Your task to perform on an android device: turn on priority inbox in the gmail app Image 0: 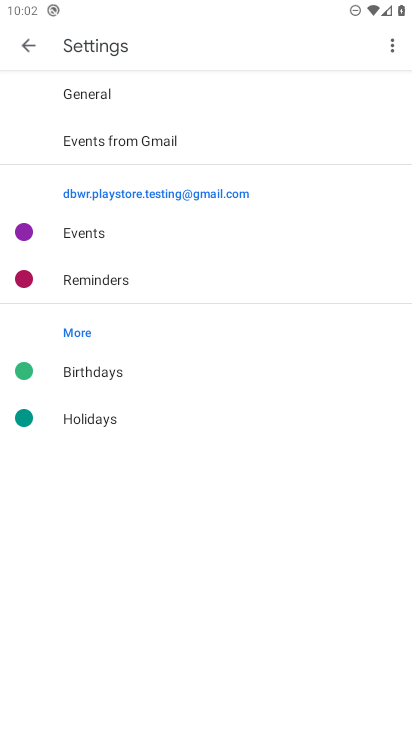
Step 0: press home button
Your task to perform on an android device: turn on priority inbox in the gmail app Image 1: 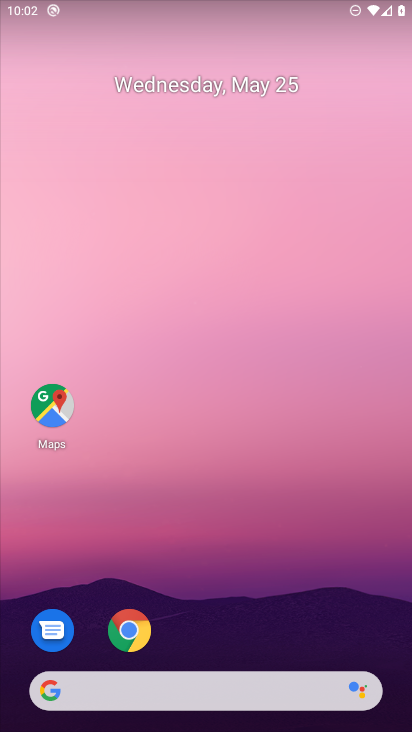
Step 1: drag from (170, 653) to (170, 406)
Your task to perform on an android device: turn on priority inbox in the gmail app Image 2: 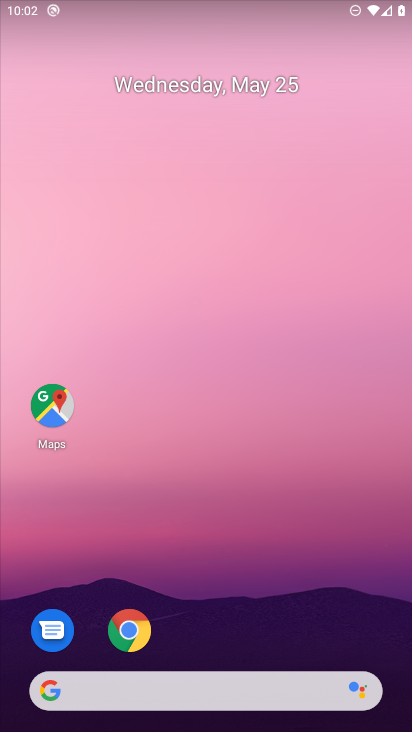
Step 2: drag from (233, 665) to (225, 199)
Your task to perform on an android device: turn on priority inbox in the gmail app Image 3: 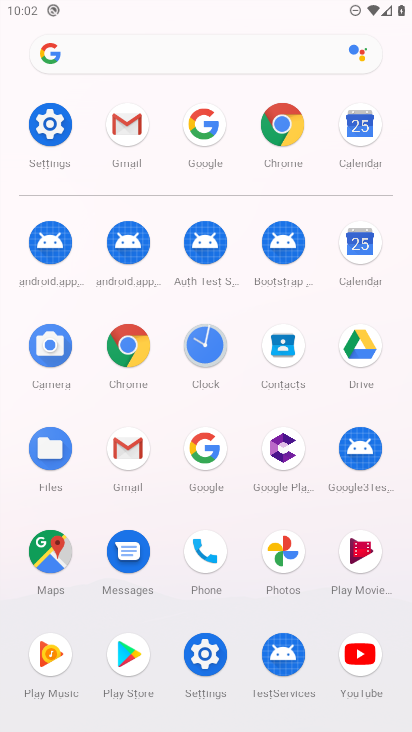
Step 3: click (127, 130)
Your task to perform on an android device: turn on priority inbox in the gmail app Image 4: 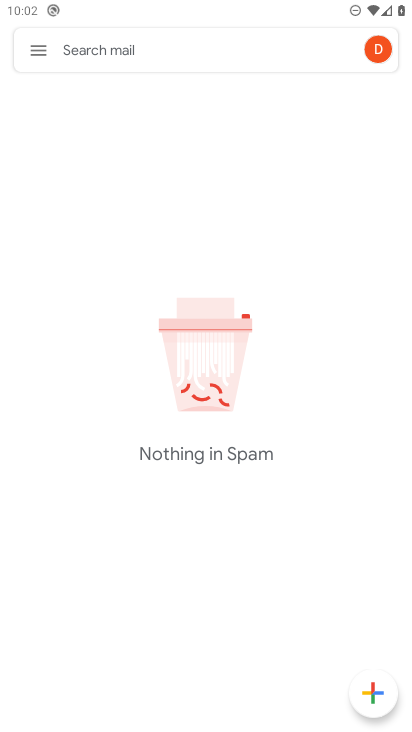
Step 4: click (39, 52)
Your task to perform on an android device: turn on priority inbox in the gmail app Image 5: 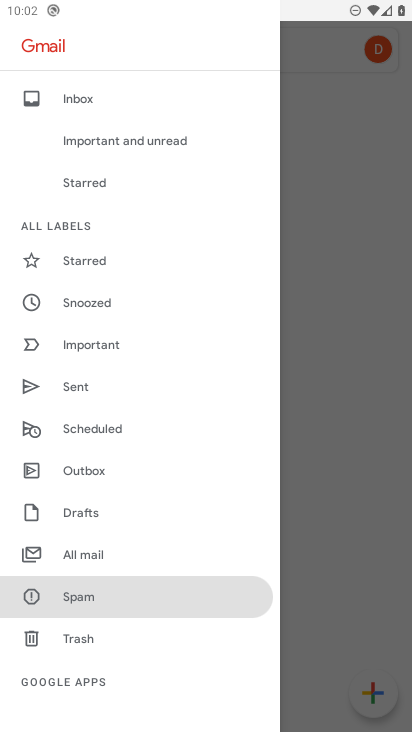
Step 5: drag from (79, 696) to (79, 352)
Your task to perform on an android device: turn on priority inbox in the gmail app Image 6: 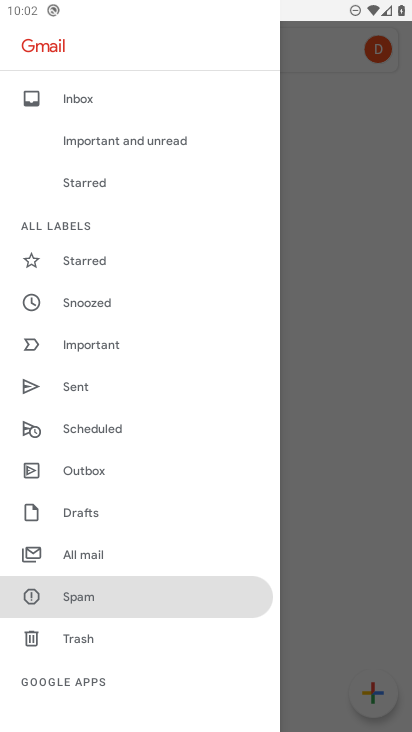
Step 6: drag from (103, 716) to (103, 375)
Your task to perform on an android device: turn on priority inbox in the gmail app Image 7: 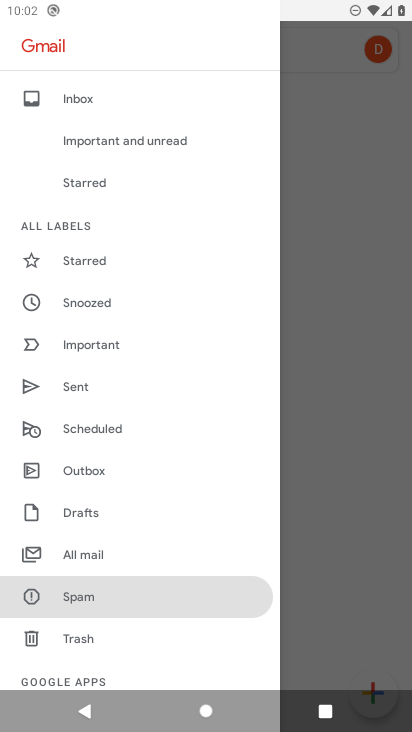
Step 7: drag from (144, 596) to (144, 315)
Your task to perform on an android device: turn on priority inbox in the gmail app Image 8: 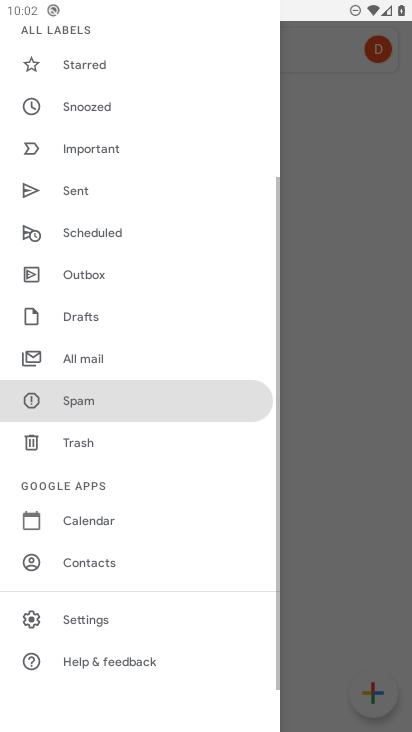
Step 8: click (102, 620)
Your task to perform on an android device: turn on priority inbox in the gmail app Image 9: 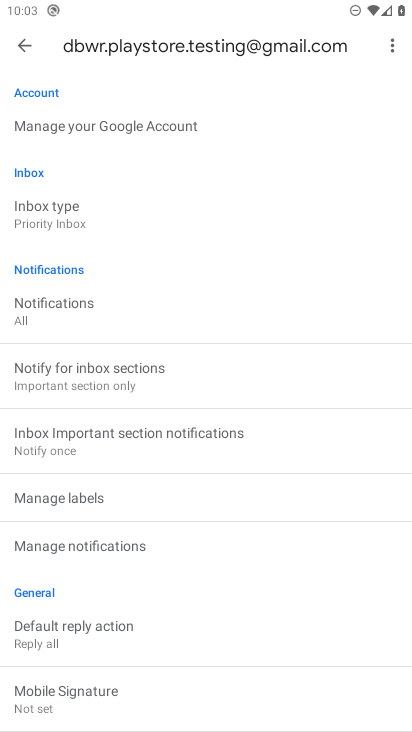
Step 9: task complete